Your task to perform on an android device: open app "Google Drive" Image 0: 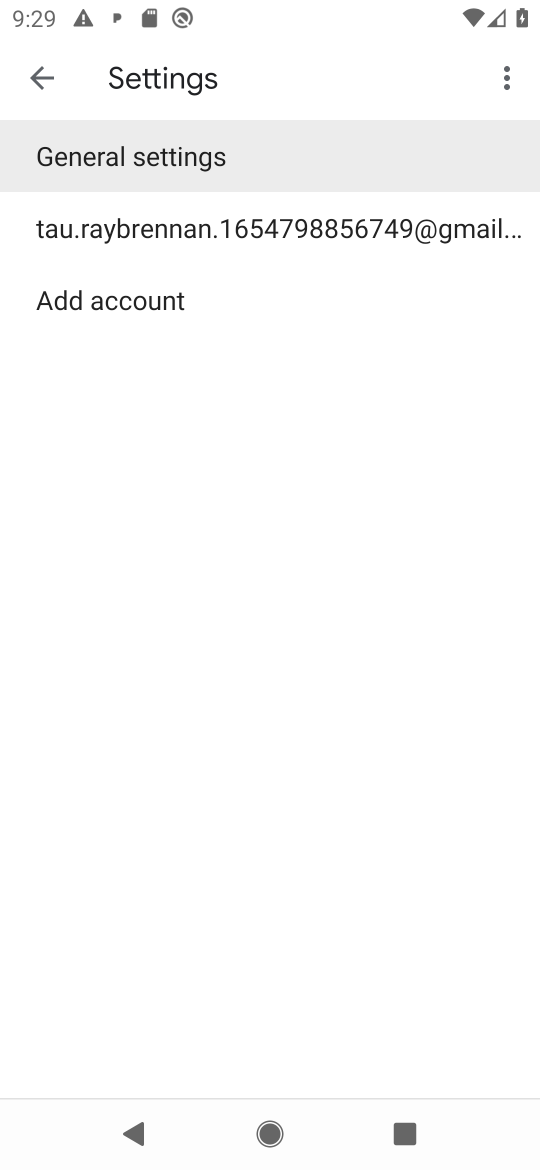
Step 0: press home button
Your task to perform on an android device: open app "Google Drive" Image 1: 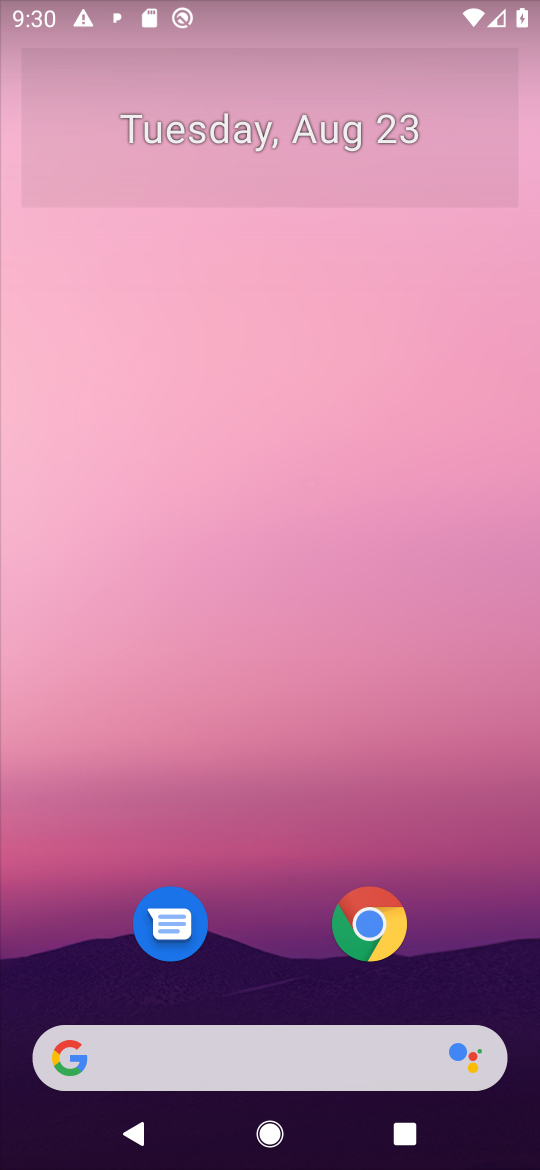
Step 1: drag from (475, 960) to (460, 90)
Your task to perform on an android device: open app "Google Drive" Image 2: 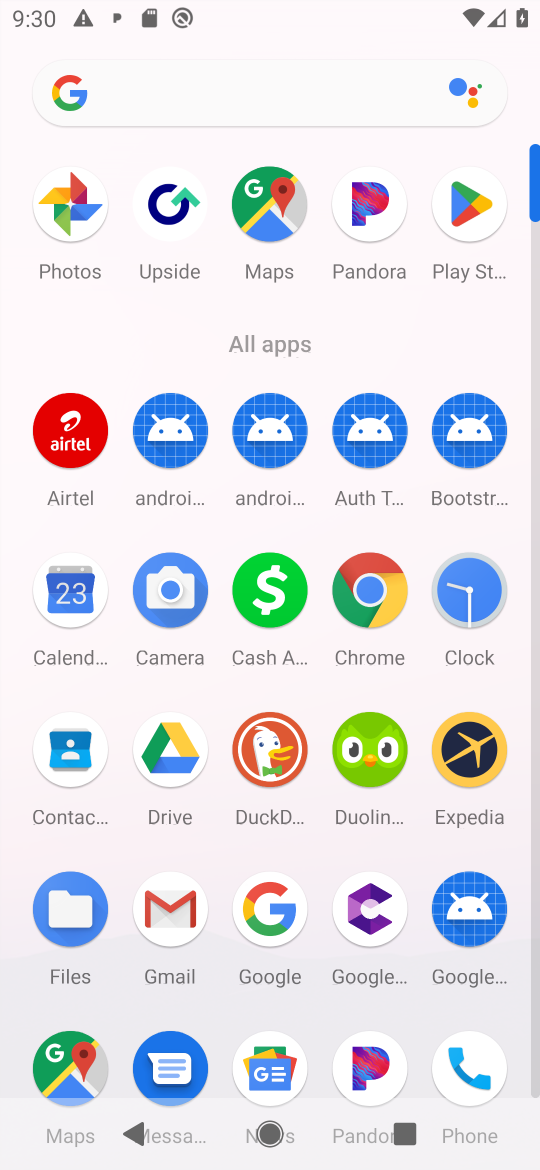
Step 2: click (451, 203)
Your task to perform on an android device: open app "Google Drive" Image 3: 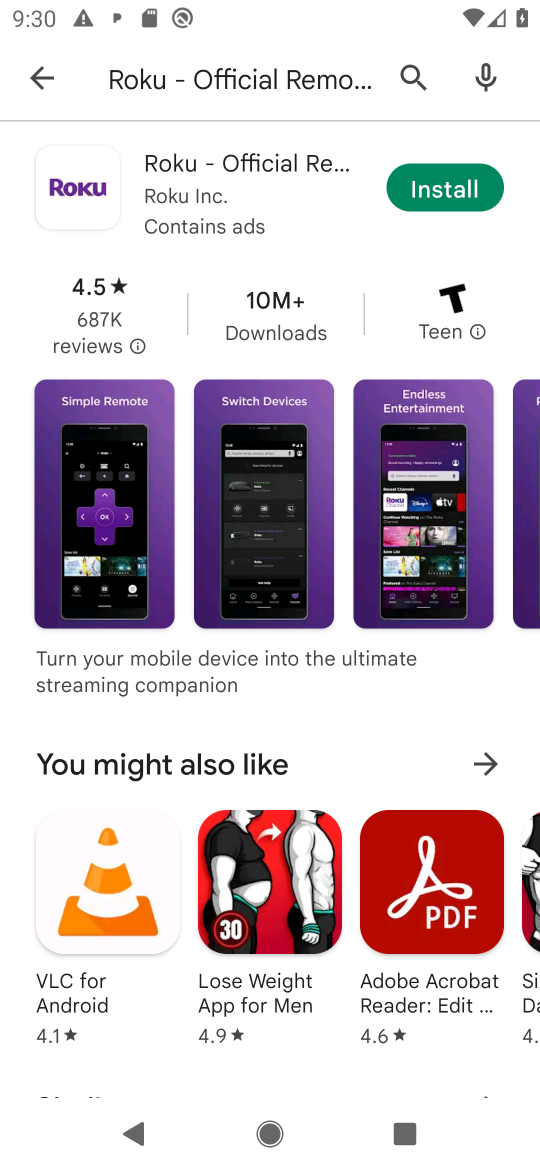
Step 3: press back button
Your task to perform on an android device: open app "Google Drive" Image 4: 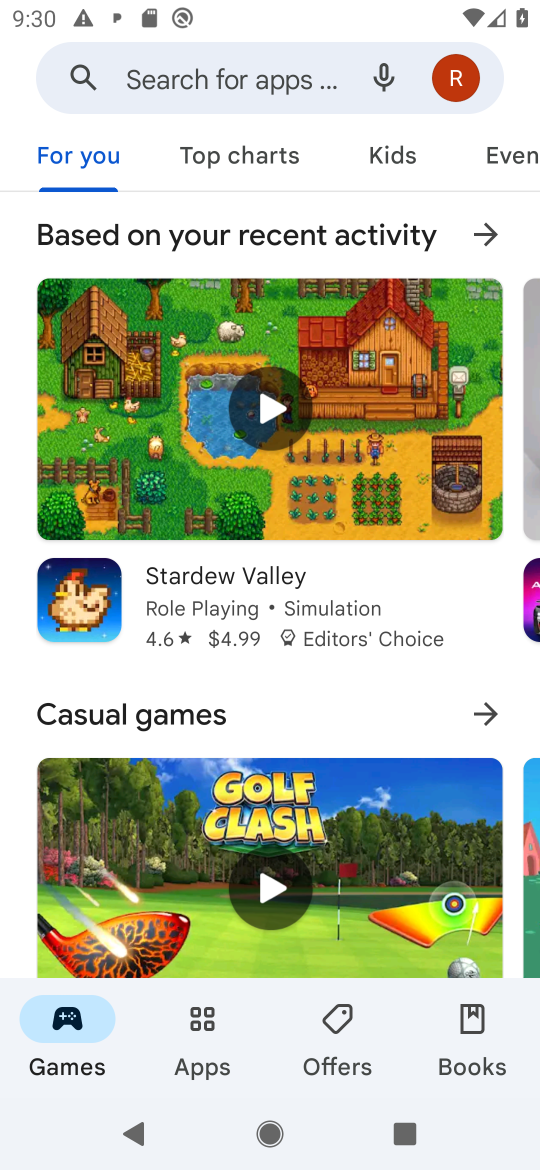
Step 4: click (283, 82)
Your task to perform on an android device: open app "Google Drive" Image 5: 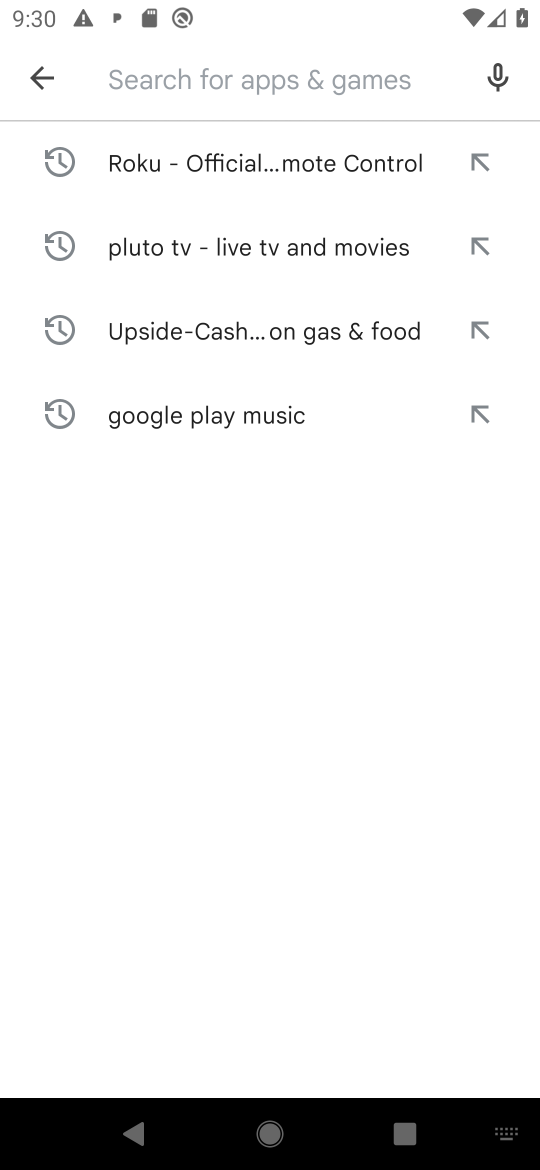
Step 5: type "Google Drive"
Your task to perform on an android device: open app "Google Drive" Image 6: 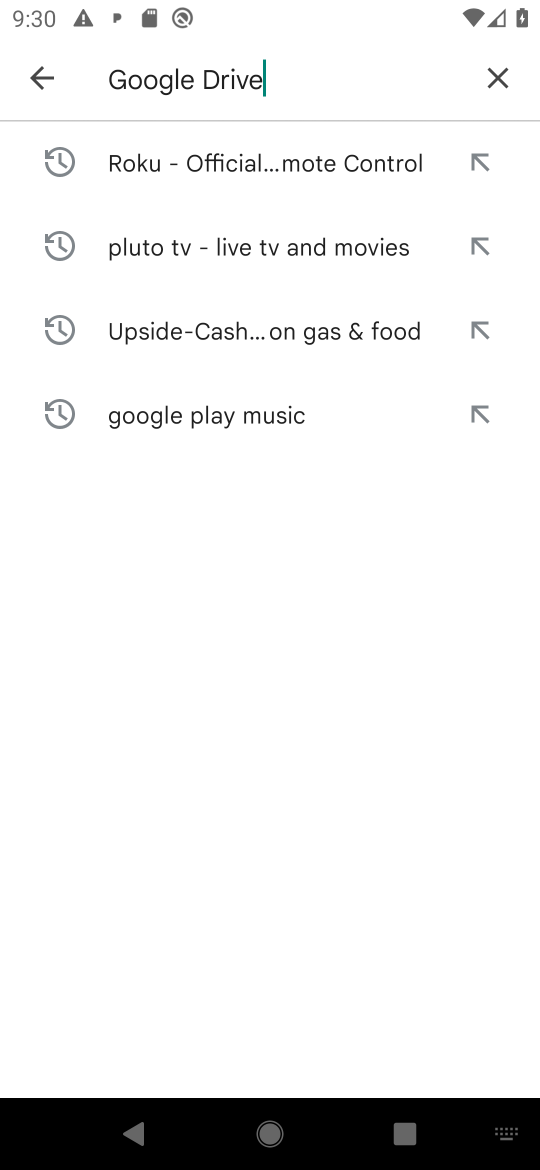
Step 6: press enter
Your task to perform on an android device: open app "Google Drive" Image 7: 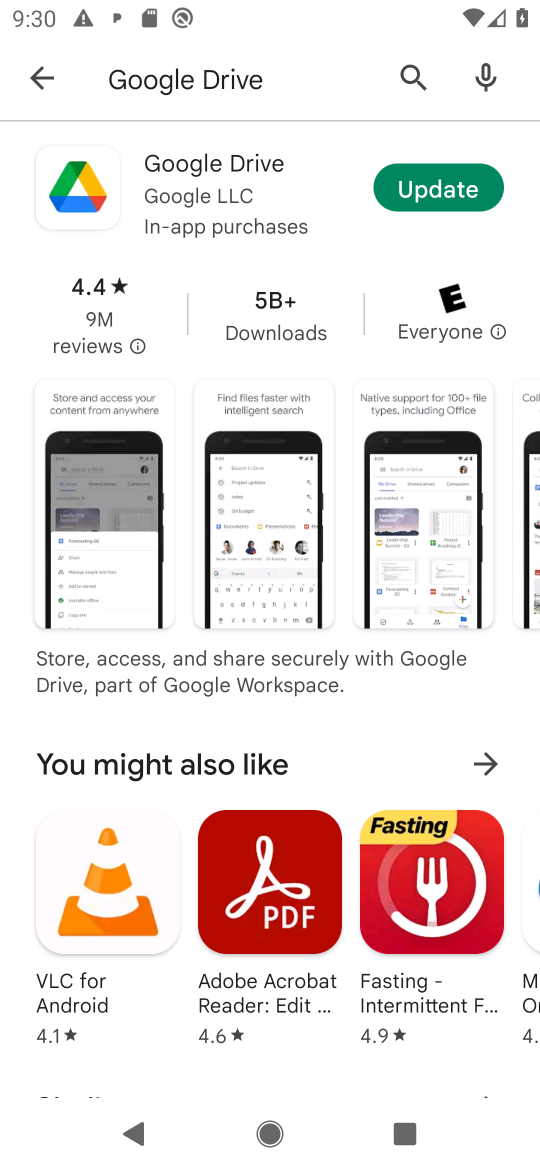
Step 7: task complete